Your task to perform on an android device: choose inbox layout in the gmail app Image 0: 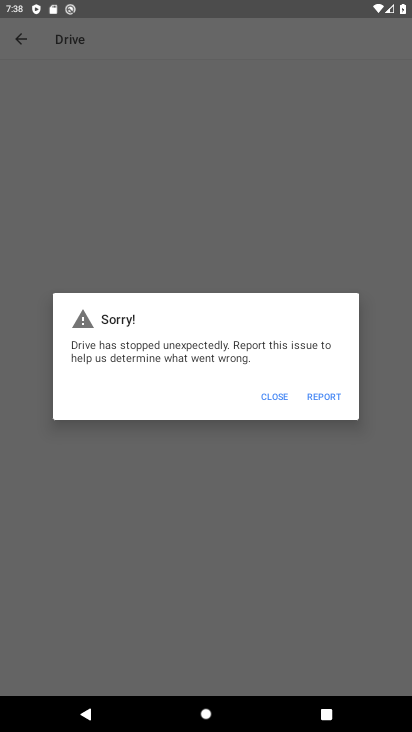
Step 0: press home button
Your task to perform on an android device: choose inbox layout in the gmail app Image 1: 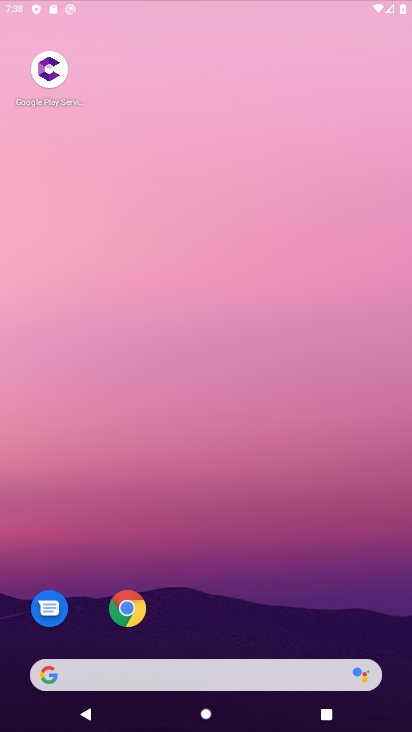
Step 1: drag from (165, 588) to (198, 205)
Your task to perform on an android device: choose inbox layout in the gmail app Image 2: 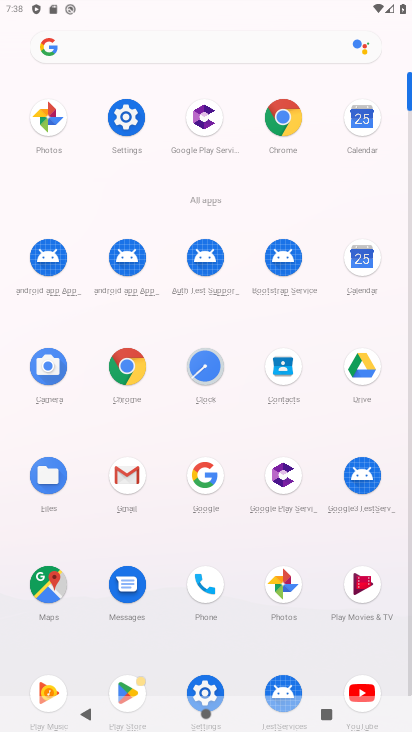
Step 2: click (123, 464)
Your task to perform on an android device: choose inbox layout in the gmail app Image 3: 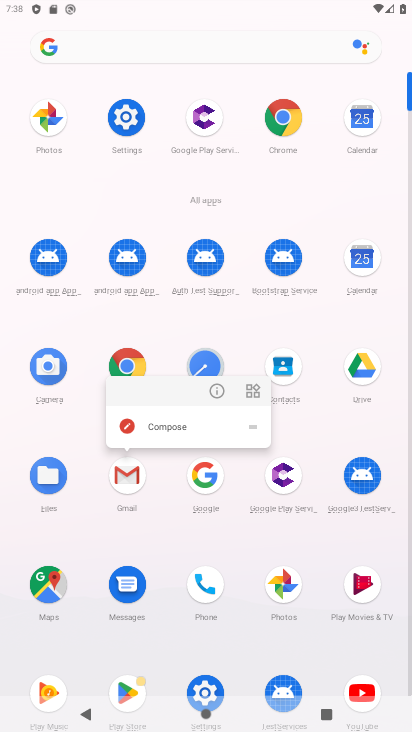
Step 3: click (215, 389)
Your task to perform on an android device: choose inbox layout in the gmail app Image 4: 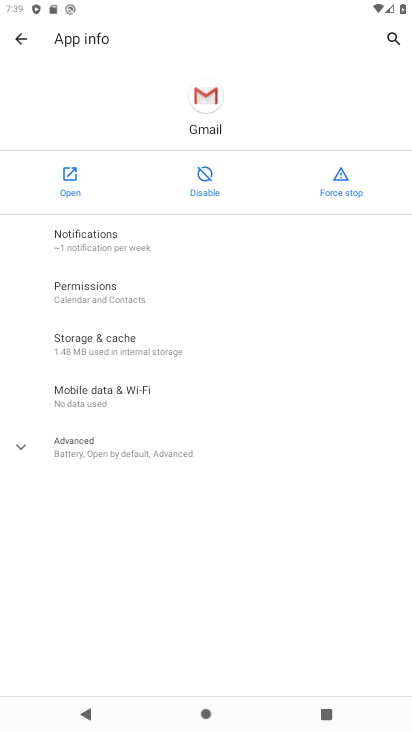
Step 4: click (50, 184)
Your task to perform on an android device: choose inbox layout in the gmail app Image 5: 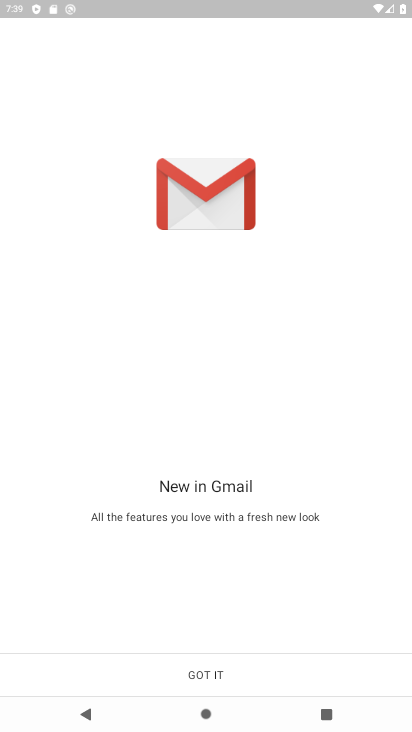
Step 5: click (205, 663)
Your task to perform on an android device: choose inbox layout in the gmail app Image 6: 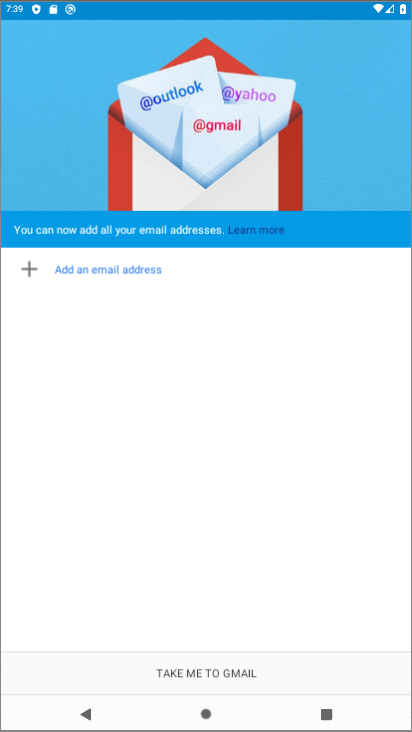
Step 6: click (214, 667)
Your task to perform on an android device: choose inbox layout in the gmail app Image 7: 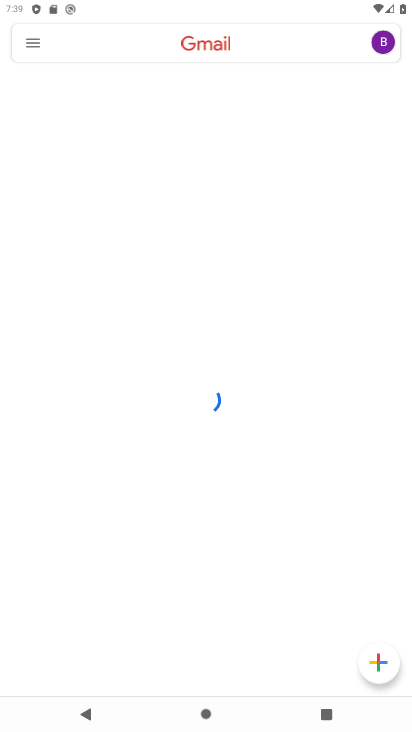
Step 7: click (31, 37)
Your task to perform on an android device: choose inbox layout in the gmail app Image 8: 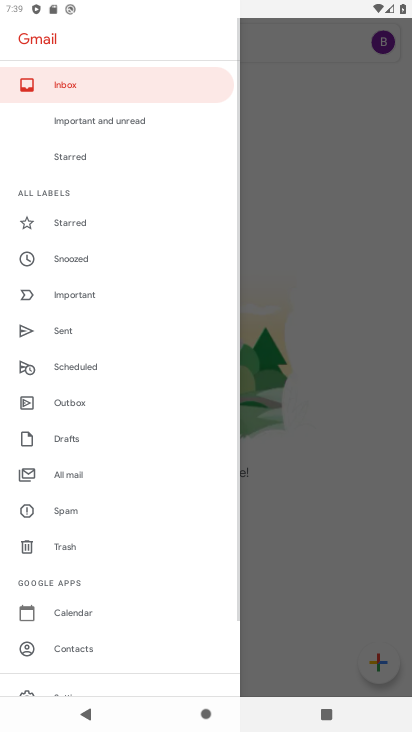
Step 8: click (98, 88)
Your task to perform on an android device: choose inbox layout in the gmail app Image 9: 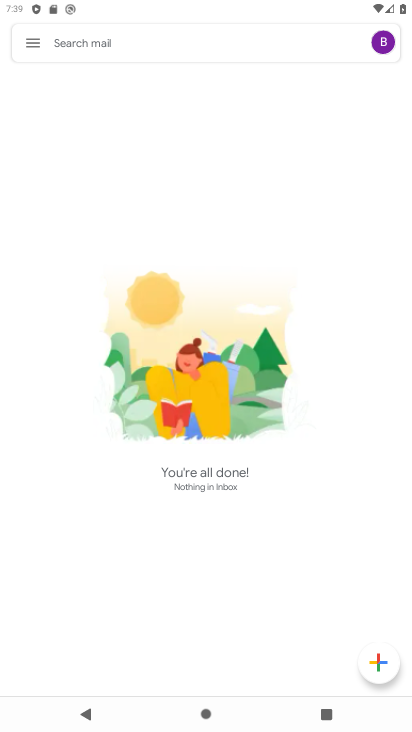
Step 9: task complete